Your task to perform on an android device: What's the weather going to be tomorrow? Image 0: 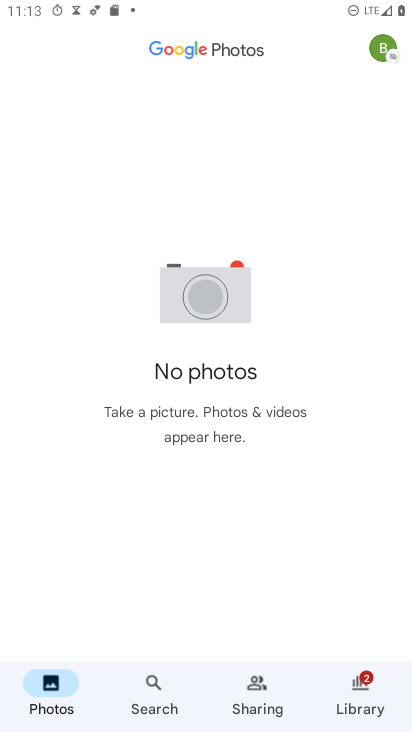
Step 0: press home button
Your task to perform on an android device: What's the weather going to be tomorrow? Image 1: 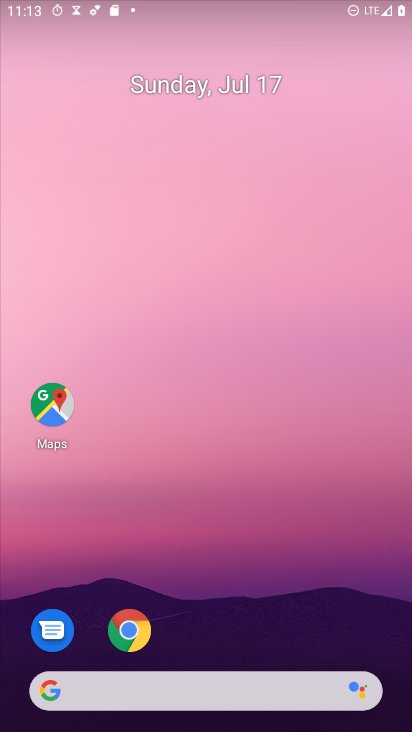
Step 1: drag from (146, 669) to (218, 16)
Your task to perform on an android device: What's the weather going to be tomorrow? Image 2: 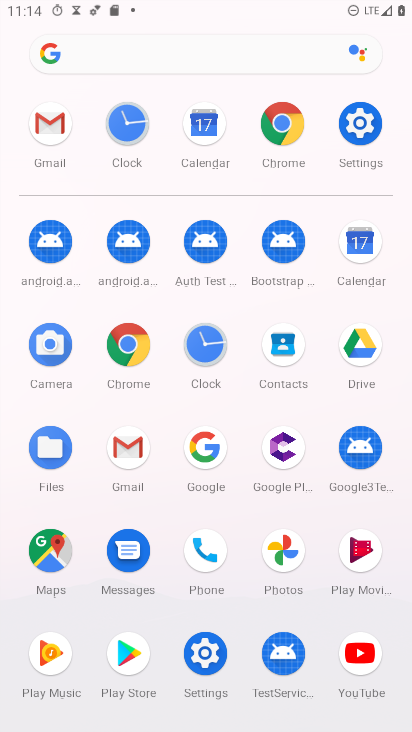
Step 2: click (359, 235)
Your task to perform on an android device: What's the weather going to be tomorrow? Image 3: 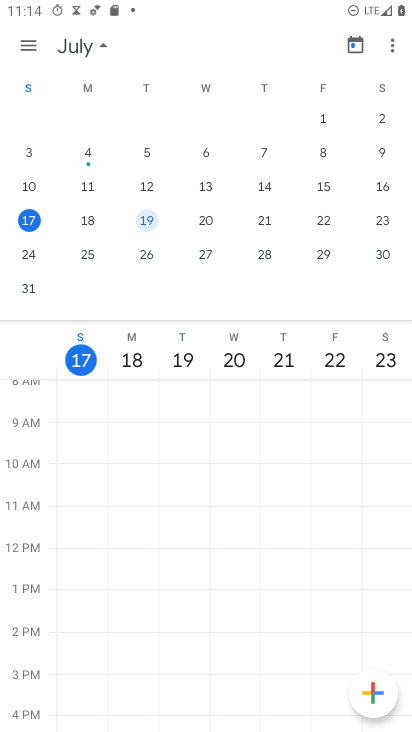
Step 3: click (92, 219)
Your task to perform on an android device: What's the weather going to be tomorrow? Image 4: 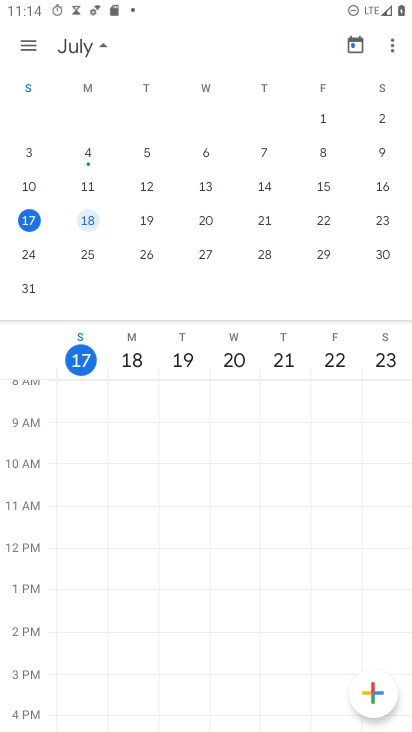
Step 4: click (150, 215)
Your task to perform on an android device: What's the weather going to be tomorrow? Image 5: 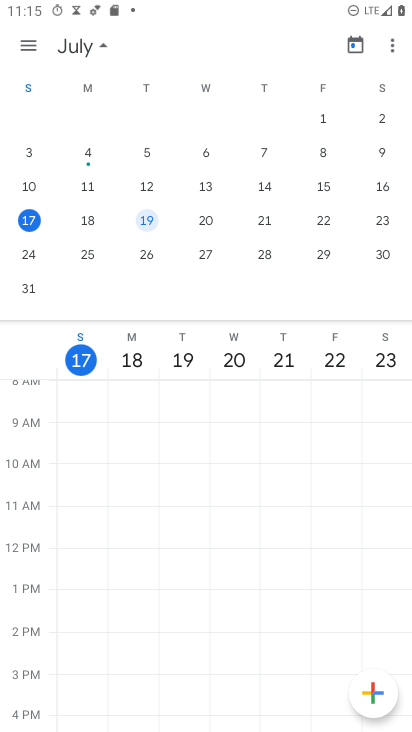
Step 5: press home button
Your task to perform on an android device: What's the weather going to be tomorrow? Image 6: 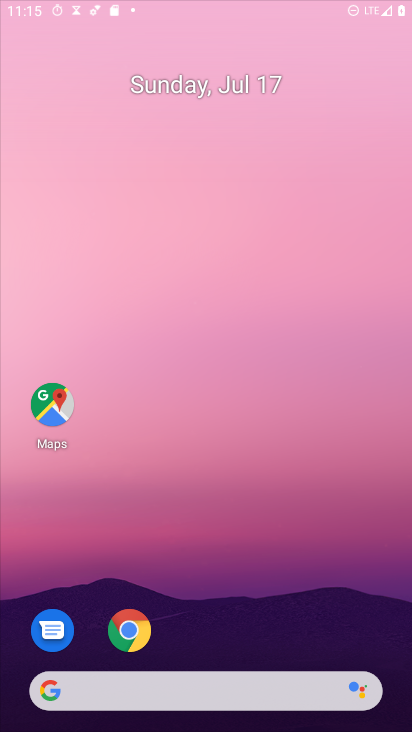
Step 6: drag from (302, 678) to (243, 105)
Your task to perform on an android device: What's the weather going to be tomorrow? Image 7: 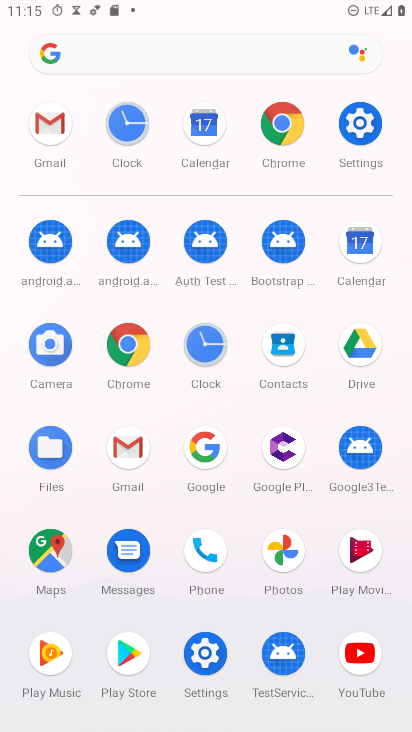
Step 7: click (127, 344)
Your task to perform on an android device: What's the weather going to be tomorrow? Image 8: 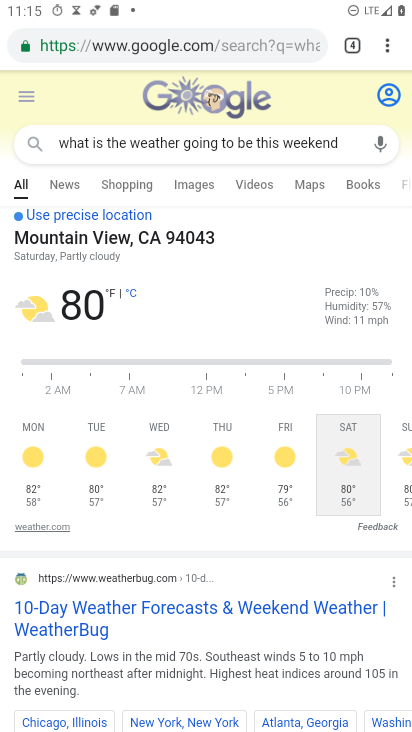
Step 8: task complete